Your task to perform on an android device: add a contact Image 0: 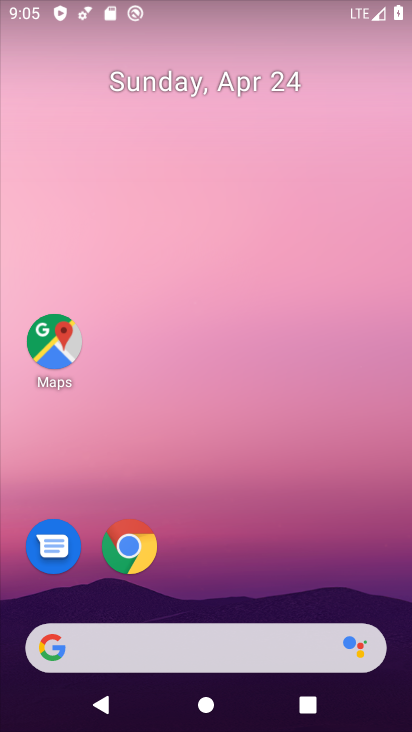
Step 0: drag from (338, 564) to (343, 81)
Your task to perform on an android device: add a contact Image 1: 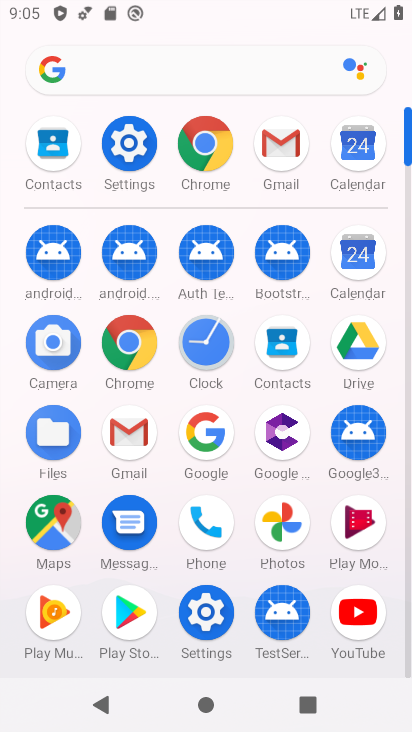
Step 1: click (283, 366)
Your task to perform on an android device: add a contact Image 2: 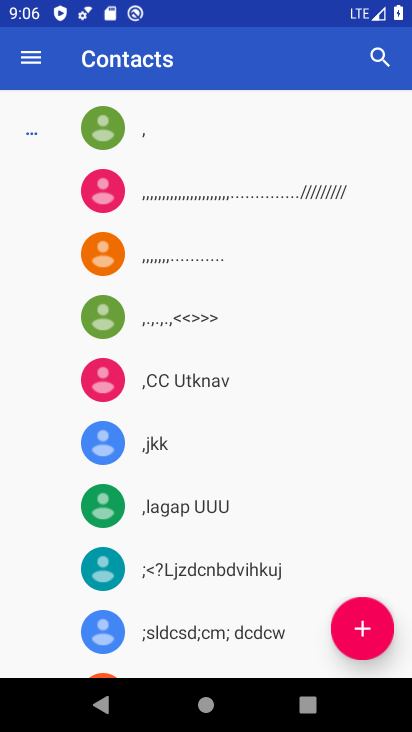
Step 2: click (366, 629)
Your task to perform on an android device: add a contact Image 3: 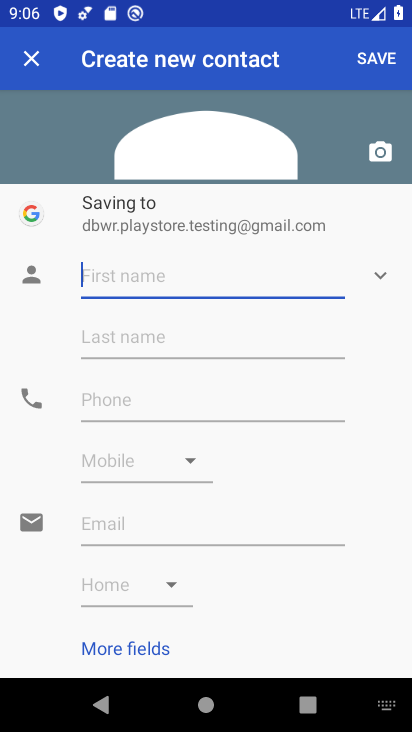
Step 3: type "k.jkk"
Your task to perform on an android device: add a contact Image 4: 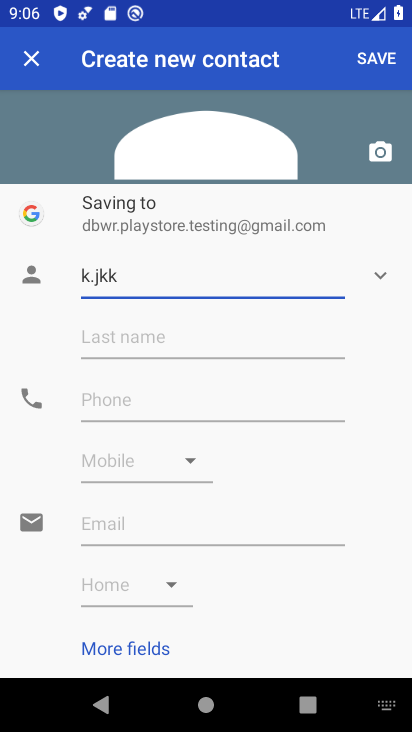
Step 4: click (270, 332)
Your task to perform on an android device: add a contact Image 5: 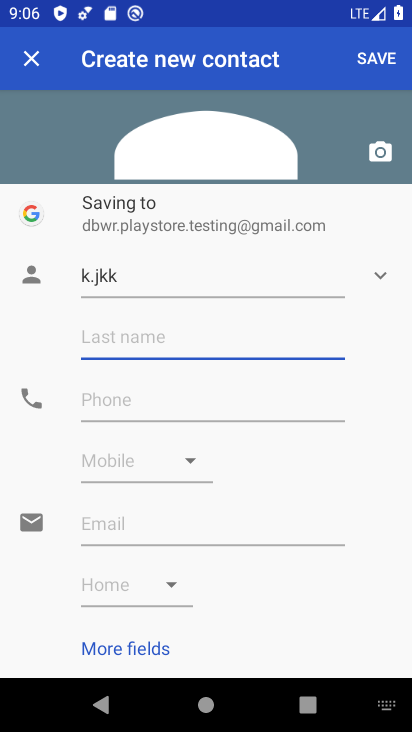
Step 5: click (245, 353)
Your task to perform on an android device: add a contact Image 6: 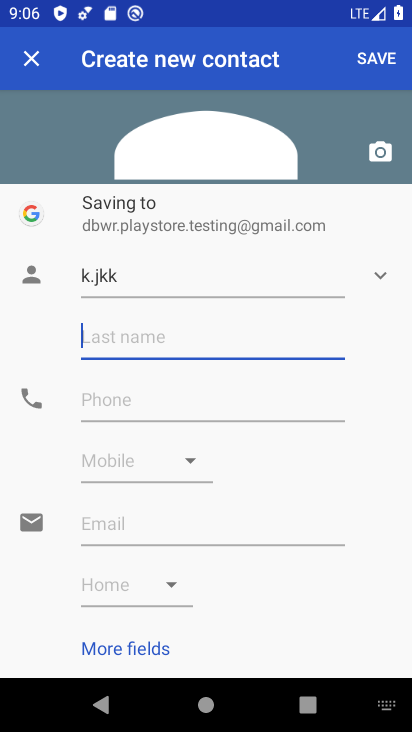
Step 6: type "mjvhg"
Your task to perform on an android device: add a contact Image 7: 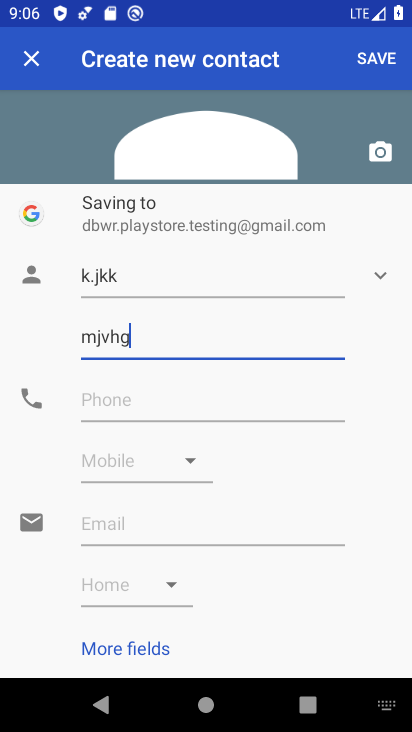
Step 7: click (230, 389)
Your task to perform on an android device: add a contact Image 8: 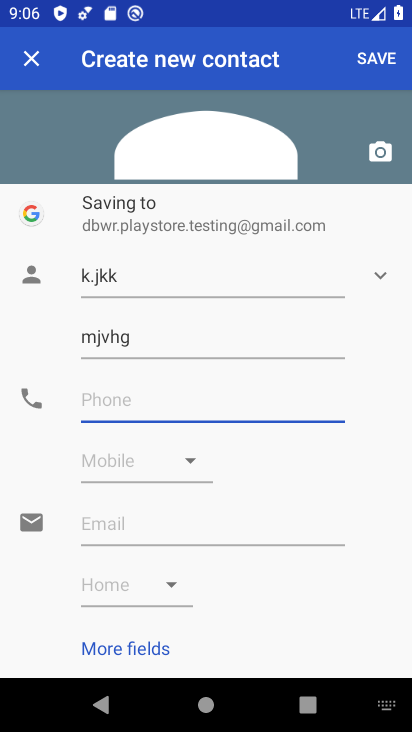
Step 8: type "87585868"
Your task to perform on an android device: add a contact Image 9: 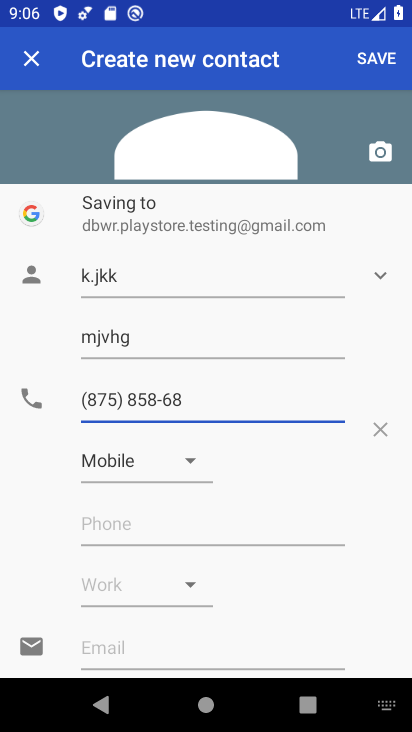
Step 9: task complete